Your task to perform on an android device: Search for sushi restaurants on Maps Image 0: 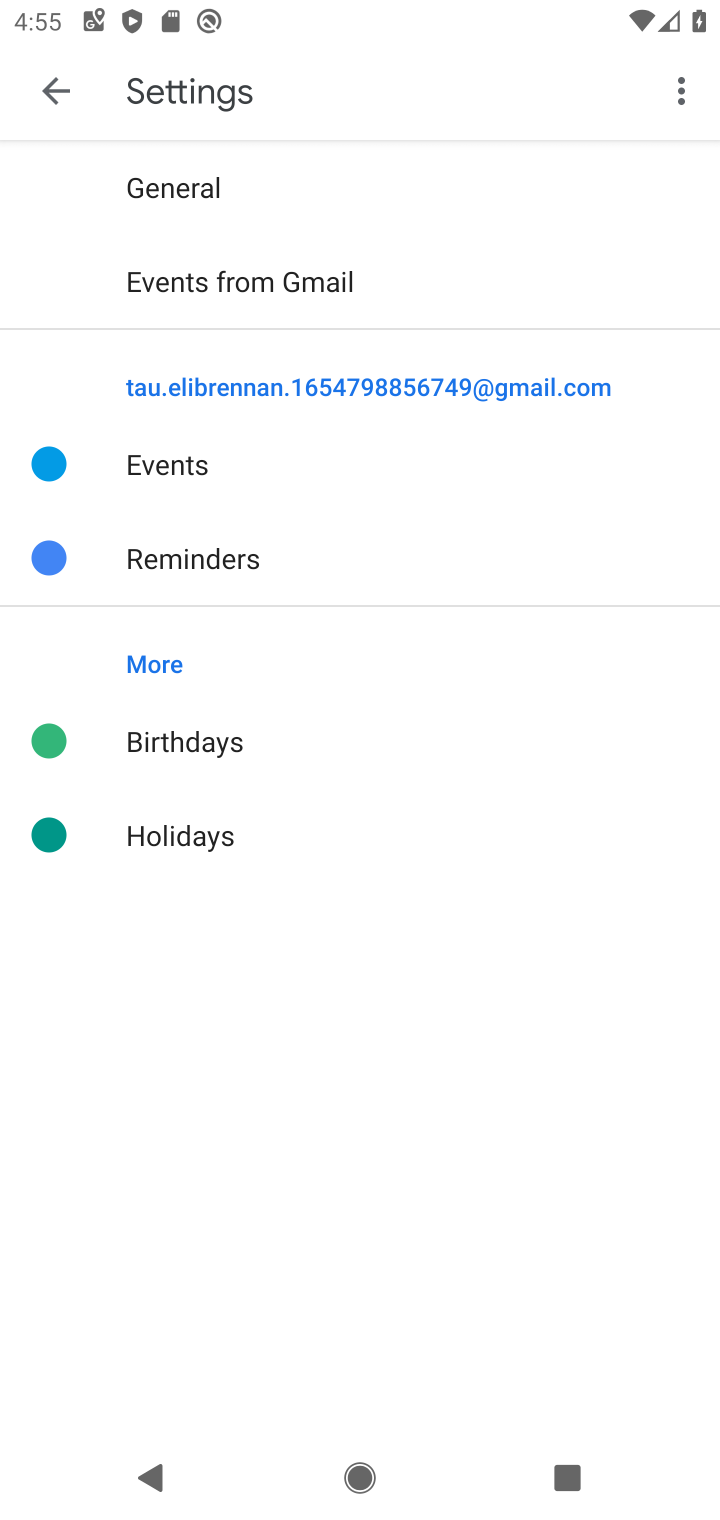
Step 0: press home button
Your task to perform on an android device: Search for sushi restaurants on Maps Image 1: 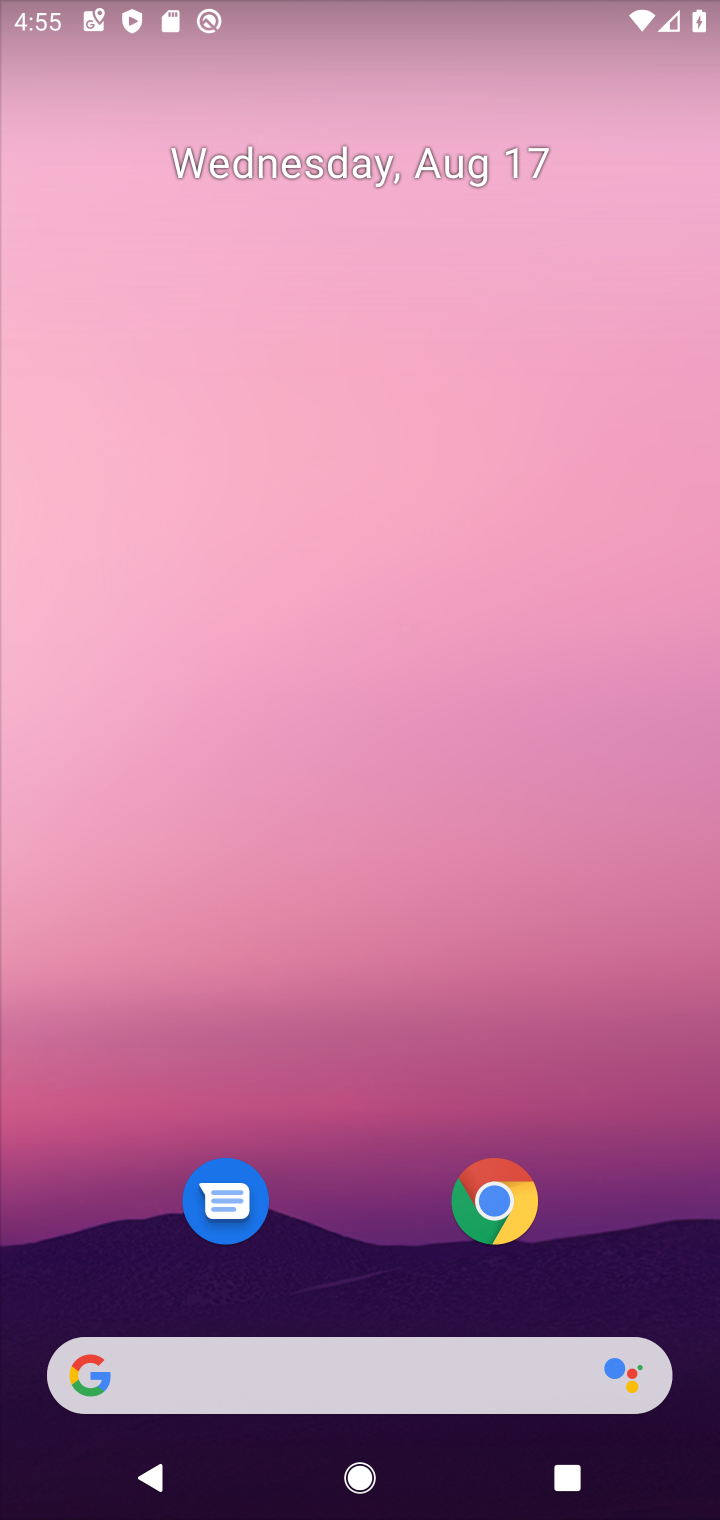
Step 1: drag from (365, 1237) to (406, 18)
Your task to perform on an android device: Search for sushi restaurants on Maps Image 2: 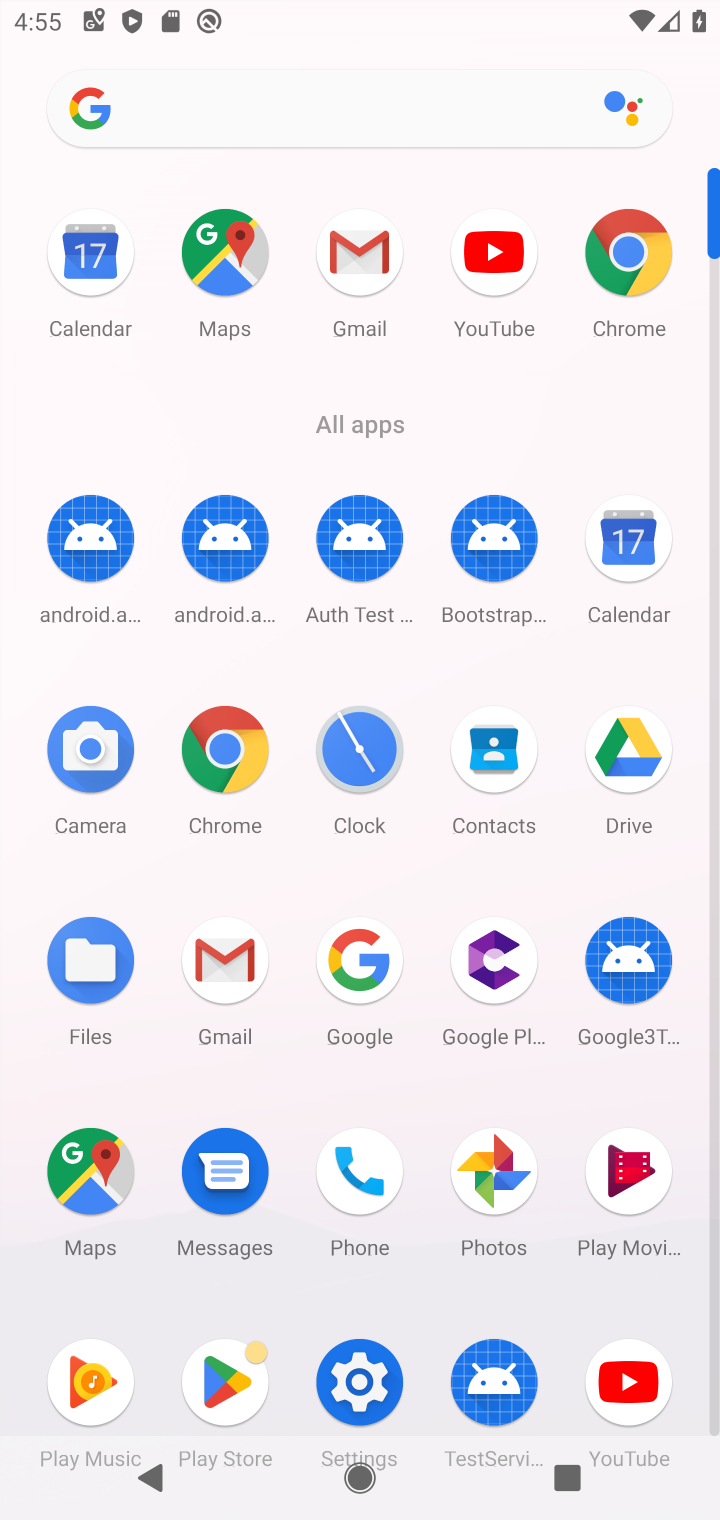
Step 2: click (100, 1183)
Your task to perform on an android device: Search for sushi restaurants on Maps Image 3: 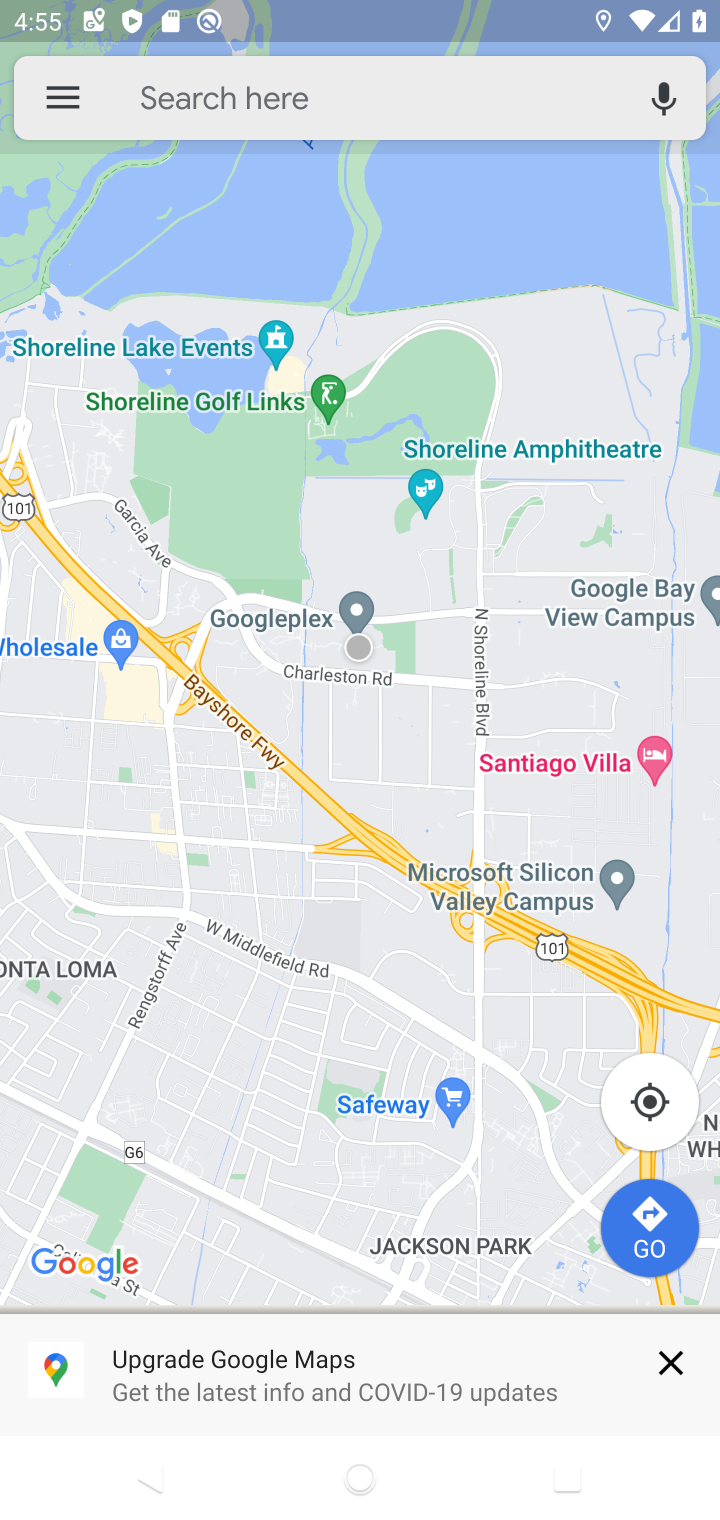
Step 3: click (297, 100)
Your task to perform on an android device: Search for sushi restaurants on Maps Image 4: 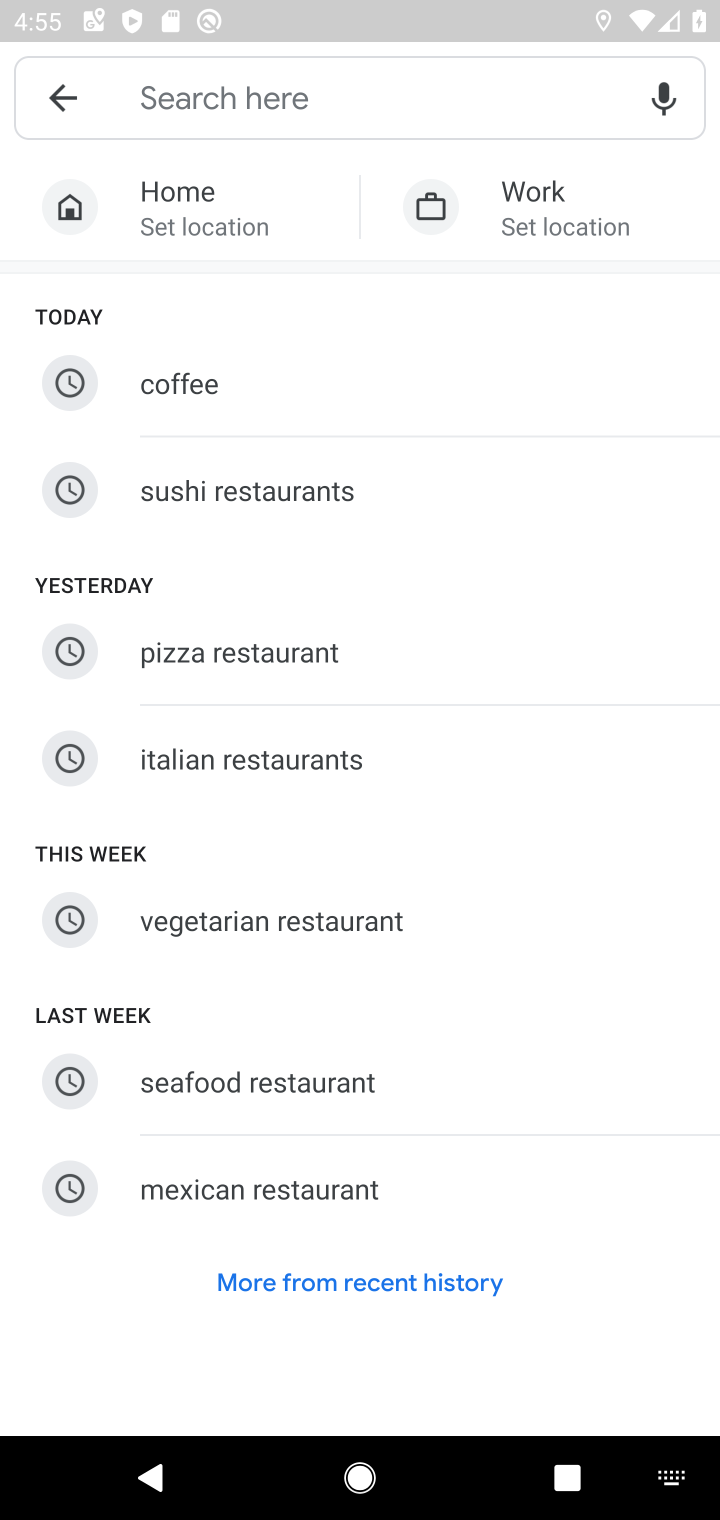
Step 4: click (272, 487)
Your task to perform on an android device: Search for sushi restaurants on Maps Image 5: 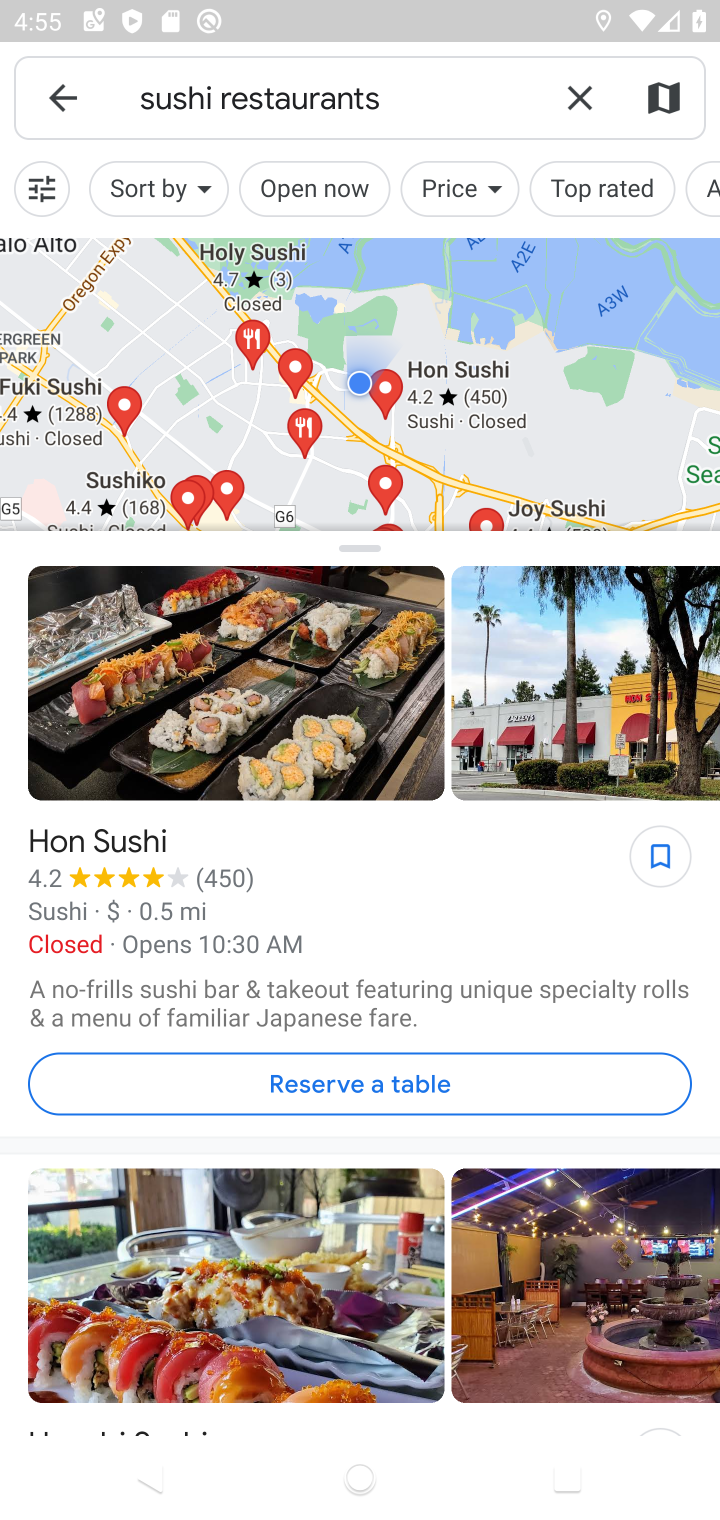
Step 5: task complete